Your task to perform on an android device: open chrome and create a bookmark for the current page Image 0: 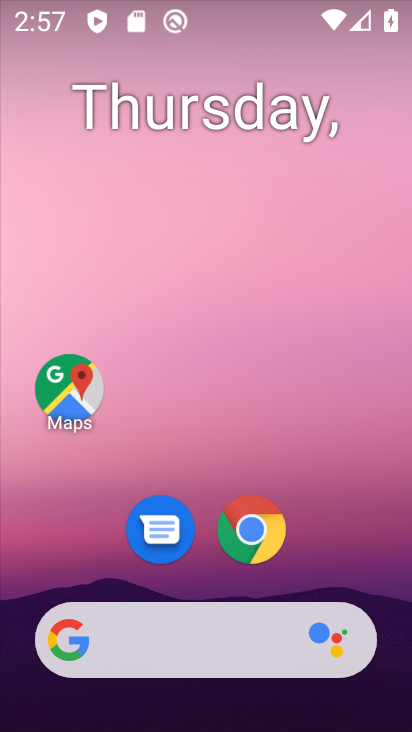
Step 0: click (249, 533)
Your task to perform on an android device: open chrome and create a bookmark for the current page Image 1: 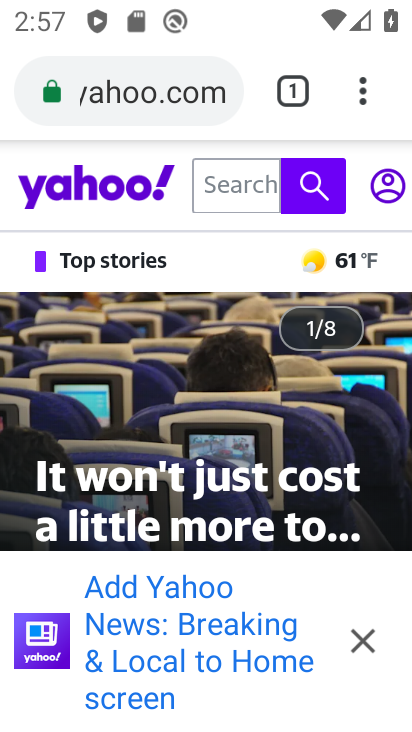
Step 1: click (365, 92)
Your task to perform on an android device: open chrome and create a bookmark for the current page Image 2: 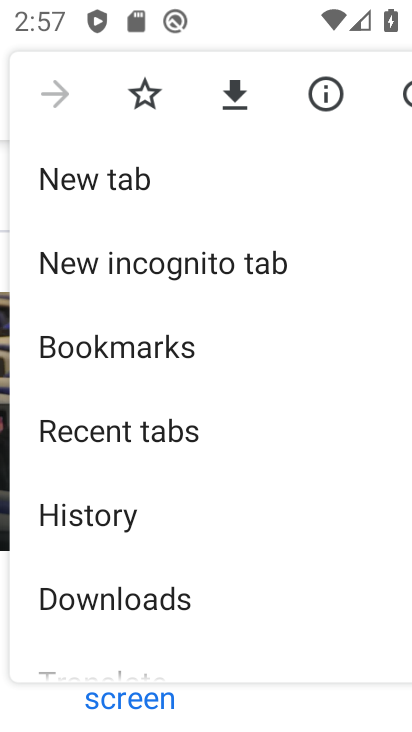
Step 2: click (144, 97)
Your task to perform on an android device: open chrome and create a bookmark for the current page Image 3: 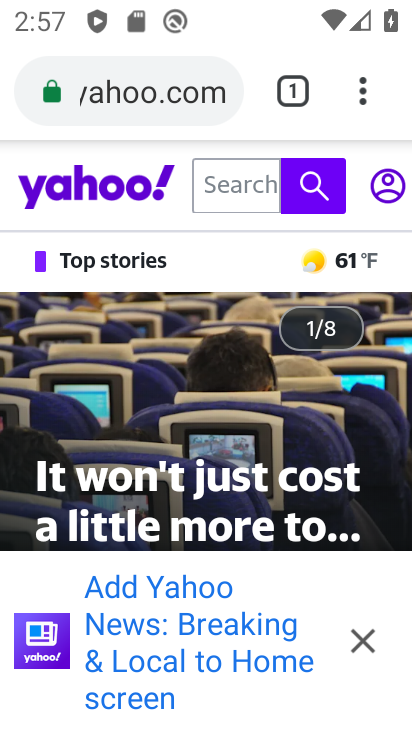
Step 3: task complete